Your task to perform on an android device: turn off wifi Image 0: 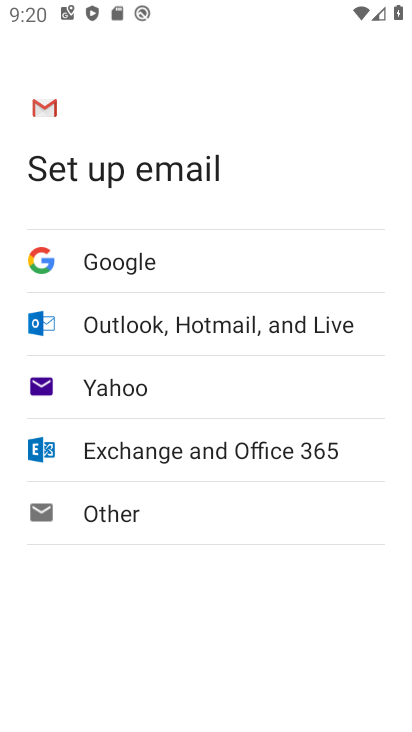
Step 0: press home button
Your task to perform on an android device: turn off wifi Image 1: 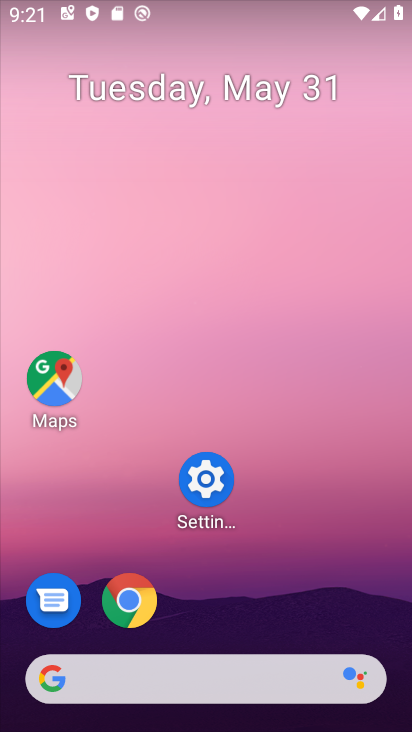
Step 1: click (200, 492)
Your task to perform on an android device: turn off wifi Image 2: 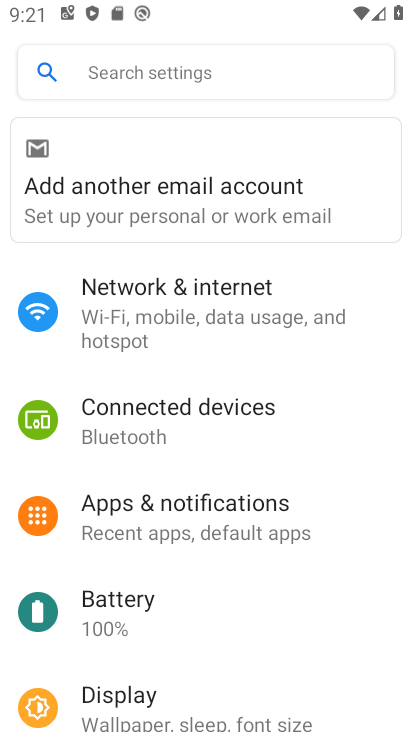
Step 2: click (158, 310)
Your task to perform on an android device: turn off wifi Image 3: 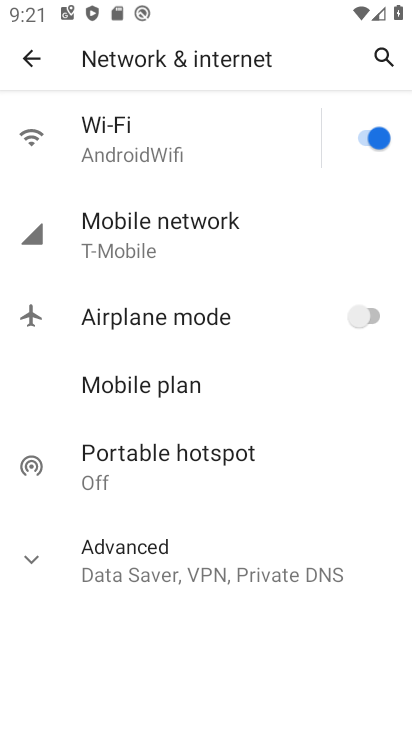
Step 3: click (376, 132)
Your task to perform on an android device: turn off wifi Image 4: 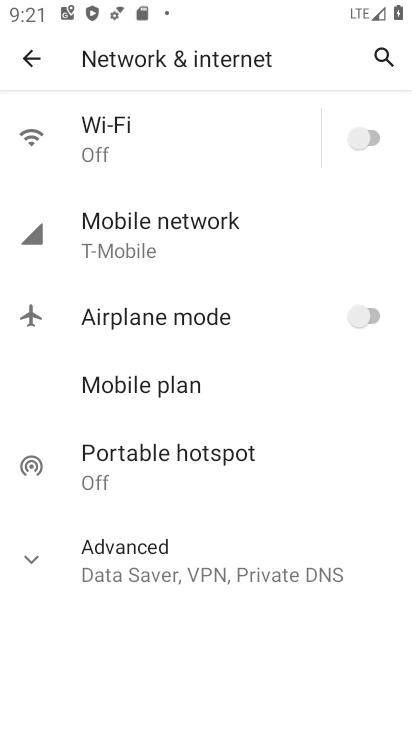
Step 4: task complete